Your task to perform on an android device: set the timer Image 0: 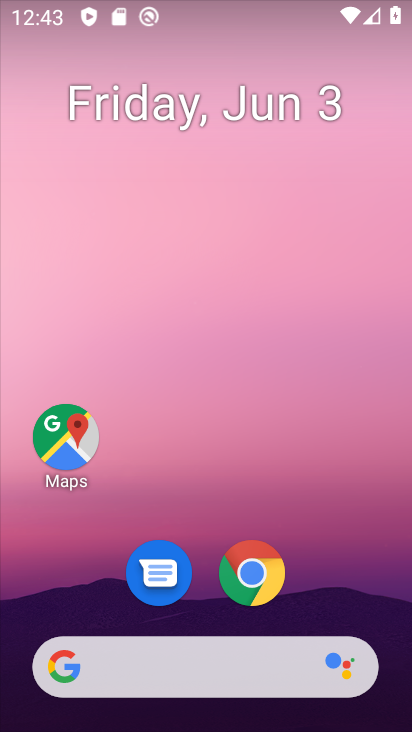
Step 0: task complete